Your task to perform on an android device: Go to Wikipedia Image 0: 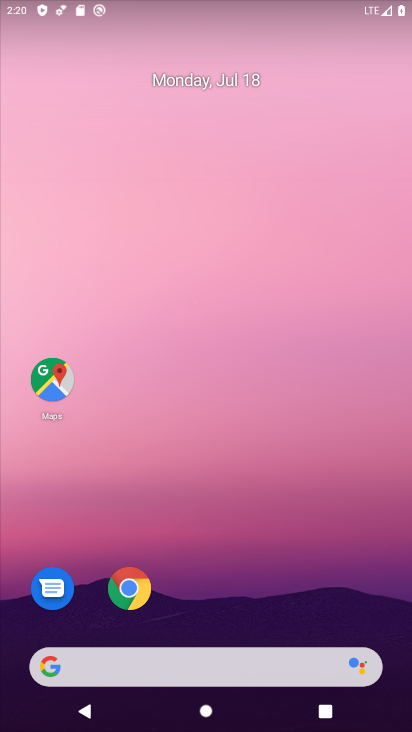
Step 0: click (128, 580)
Your task to perform on an android device: Go to Wikipedia Image 1: 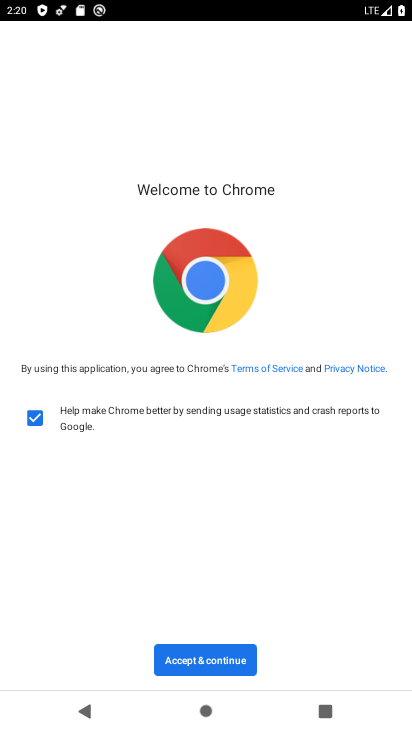
Step 1: click (196, 664)
Your task to perform on an android device: Go to Wikipedia Image 2: 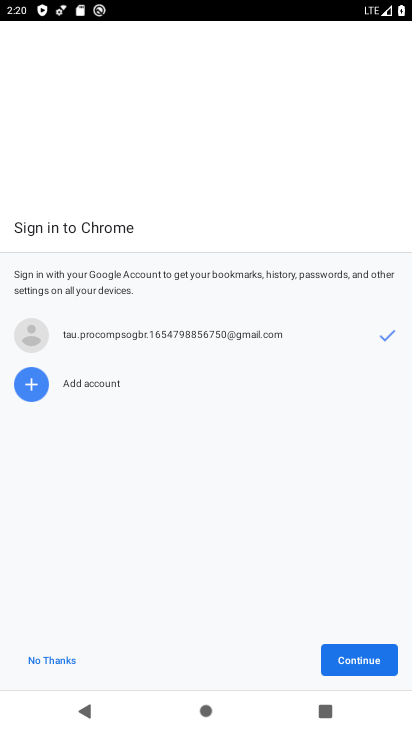
Step 2: click (347, 662)
Your task to perform on an android device: Go to Wikipedia Image 3: 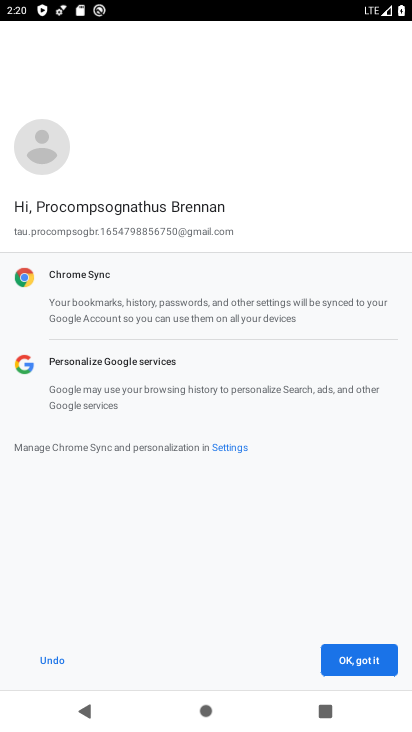
Step 3: click (347, 662)
Your task to perform on an android device: Go to Wikipedia Image 4: 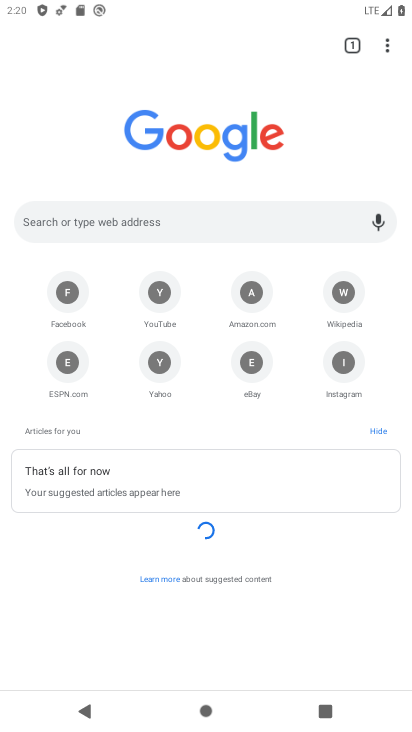
Step 4: click (338, 299)
Your task to perform on an android device: Go to Wikipedia Image 5: 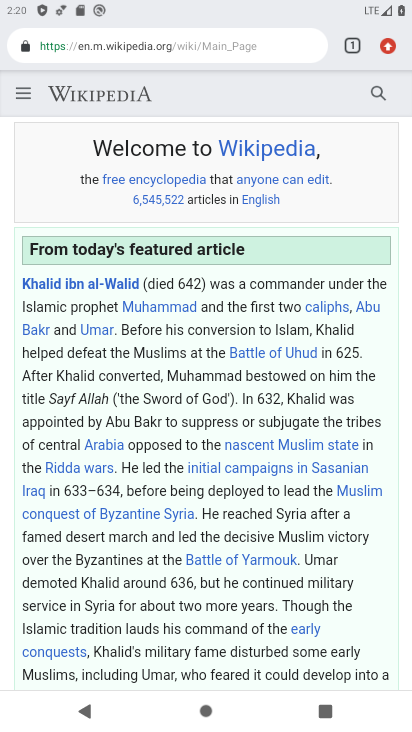
Step 5: task complete